Your task to perform on an android device: Set the phone to "Do not disturb". Image 0: 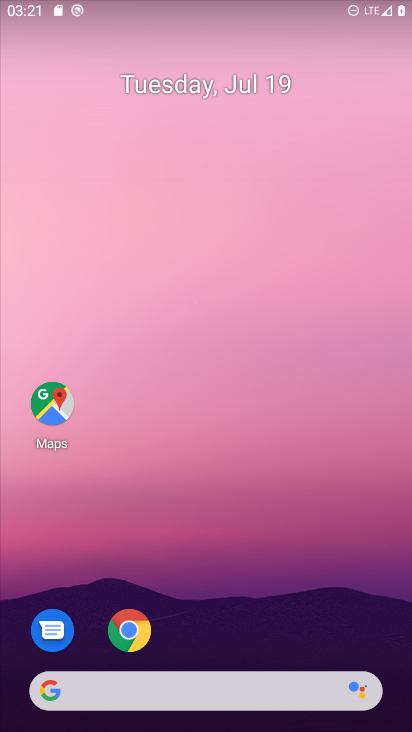
Step 0: drag from (391, 641) to (356, 174)
Your task to perform on an android device: Set the phone to "Do not disturb". Image 1: 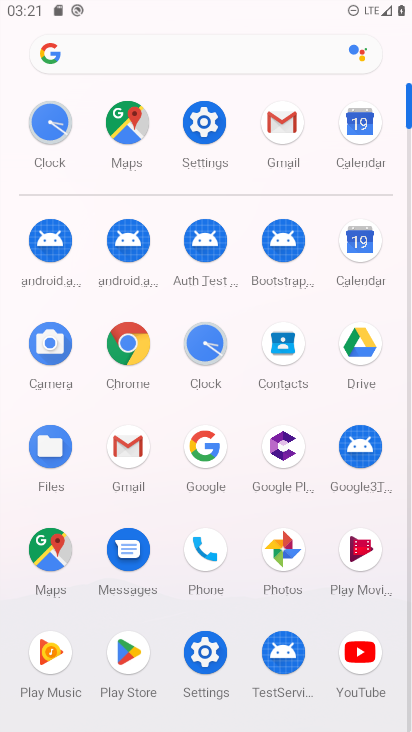
Step 1: click (205, 656)
Your task to perform on an android device: Set the phone to "Do not disturb". Image 2: 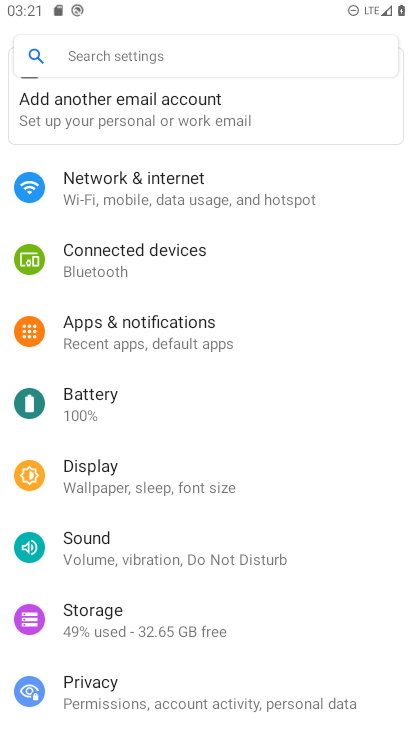
Step 2: click (136, 542)
Your task to perform on an android device: Set the phone to "Do not disturb". Image 3: 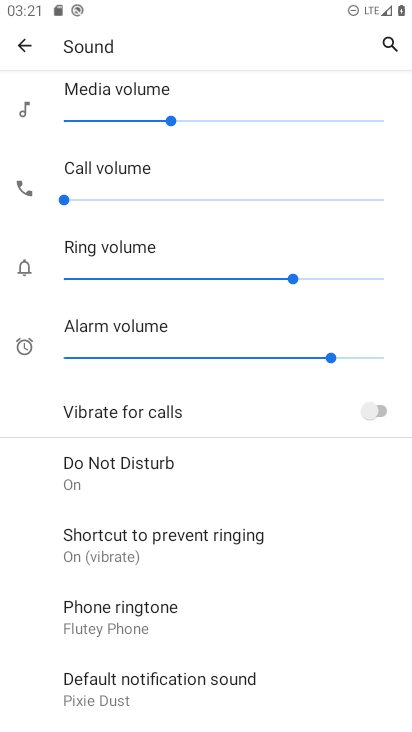
Step 3: click (96, 469)
Your task to perform on an android device: Set the phone to "Do not disturb". Image 4: 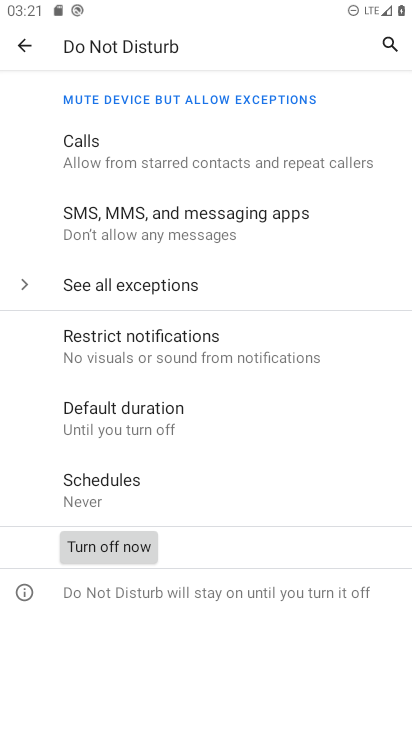
Step 4: task complete